Your task to perform on an android device: What's the weather going to be this weekend? Image 0: 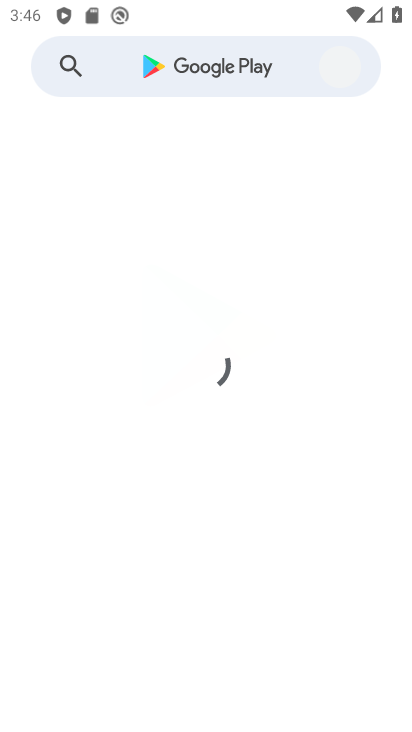
Step 0: click (270, 584)
Your task to perform on an android device: What's the weather going to be this weekend? Image 1: 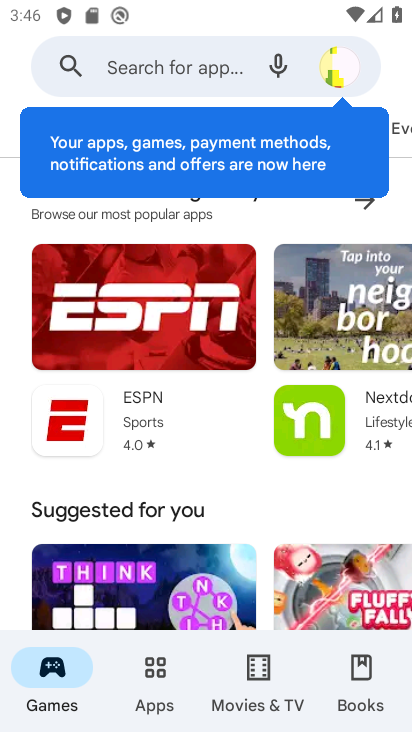
Step 1: press home button
Your task to perform on an android device: What's the weather going to be this weekend? Image 2: 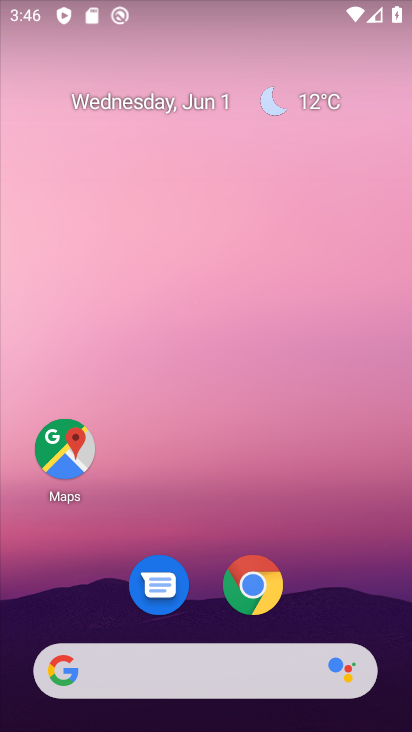
Step 2: click (216, 685)
Your task to perform on an android device: What's the weather going to be this weekend? Image 3: 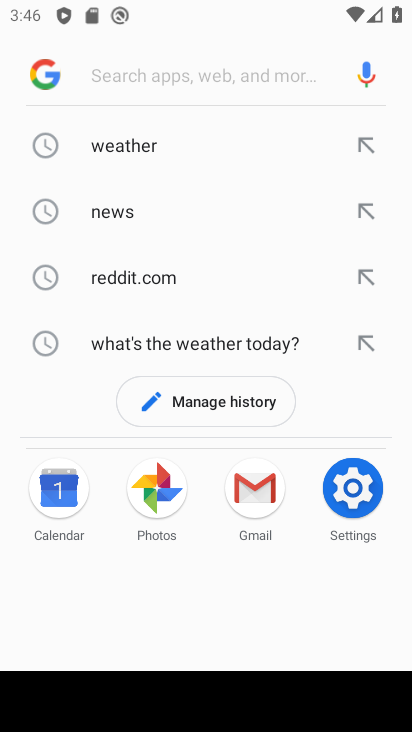
Step 3: click (138, 140)
Your task to perform on an android device: What's the weather going to be this weekend? Image 4: 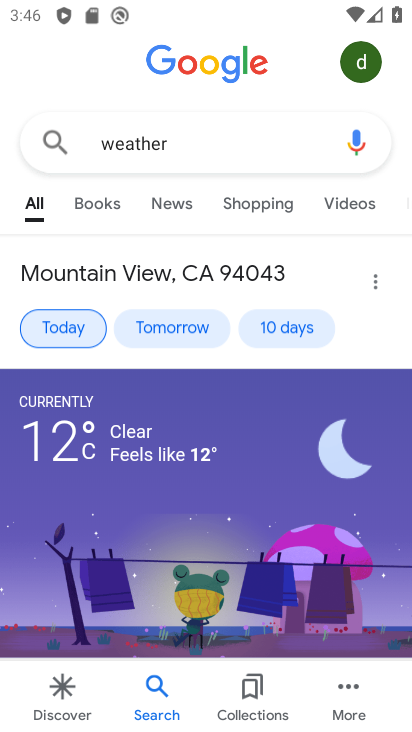
Step 4: click (64, 324)
Your task to perform on an android device: What's the weather going to be this weekend? Image 5: 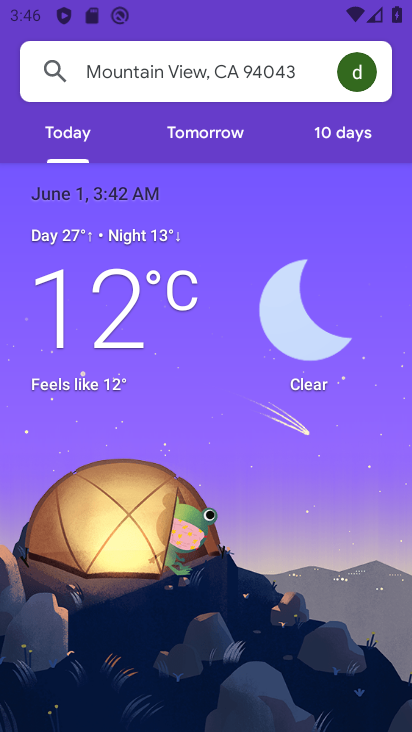
Step 5: click (325, 127)
Your task to perform on an android device: What's the weather going to be this weekend? Image 6: 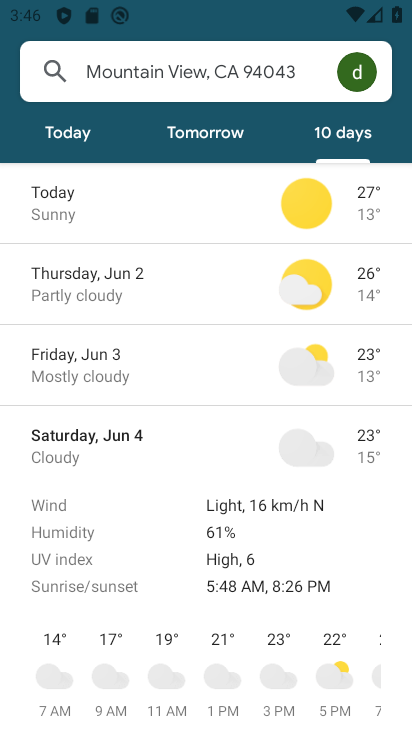
Step 6: task complete